Your task to perform on an android device: Open the phone app and click the voicemail tab. Image 0: 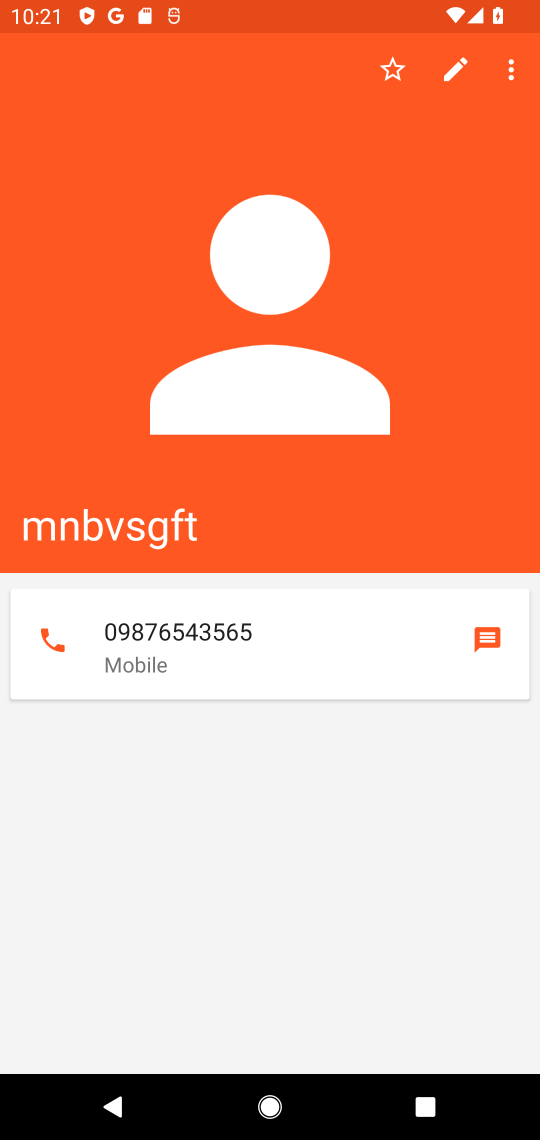
Step 0: press home button
Your task to perform on an android device: Open the phone app and click the voicemail tab. Image 1: 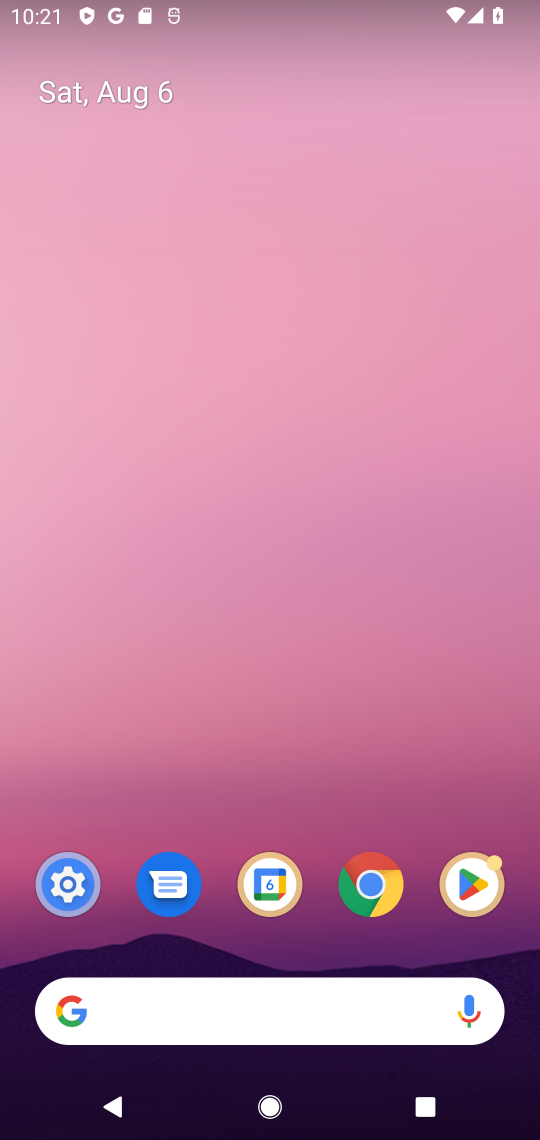
Step 1: drag from (426, 947) to (406, 237)
Your task to perform on an android device: Open the phone app and click the voicemail tab. Image 2: 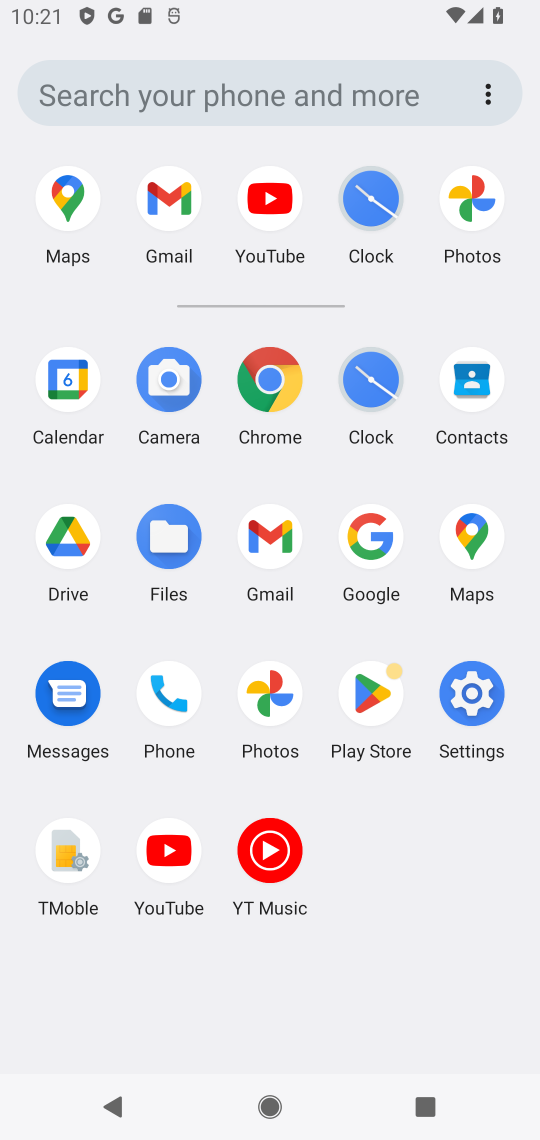
Step 2: click (162, 688)
Your task to perform on an android device: Open the phone app and click the voicemail tab. Image 3: 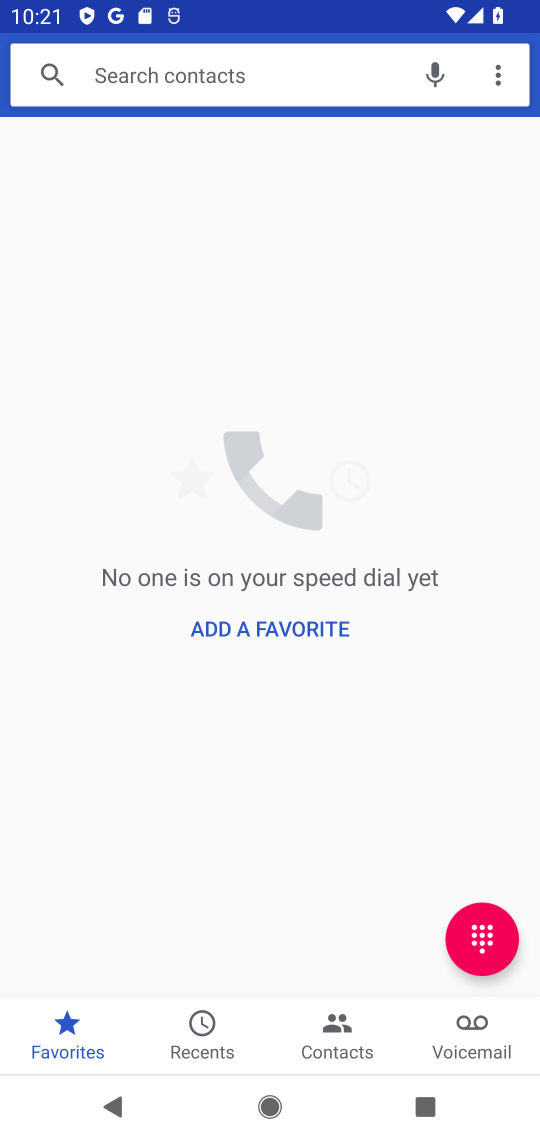
Step 3: click (469, 1029)
Your task to perform on an android device: Open the phone app and click the voicemail tab. Image 4: 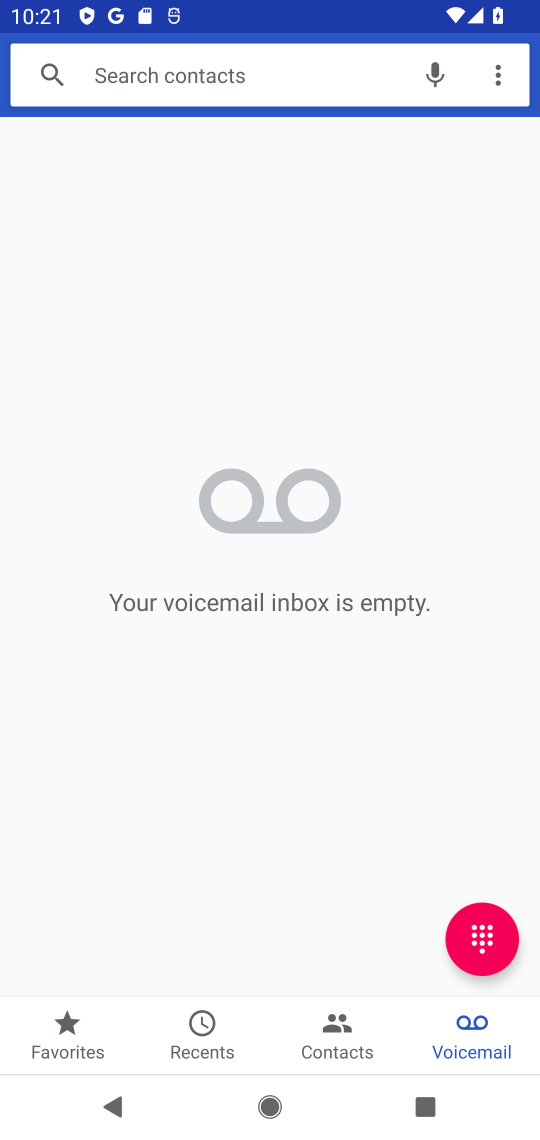
Step 4: task complete